Your task to perform on an android device: toggle sleep mode Image 0: 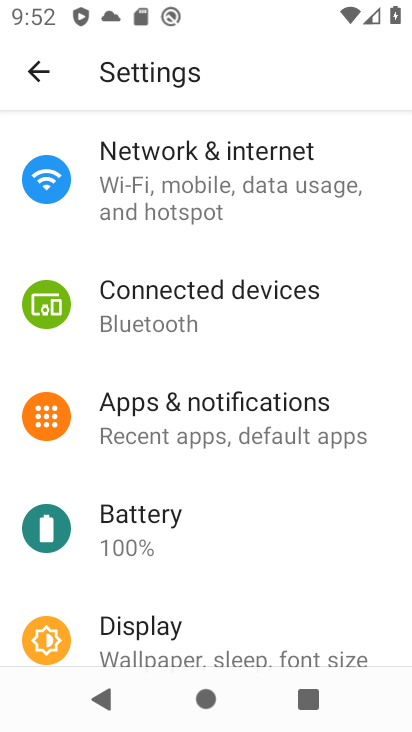
Step 0: press home button
Your task to perform on an android device: toggle sleep mode Image 1: 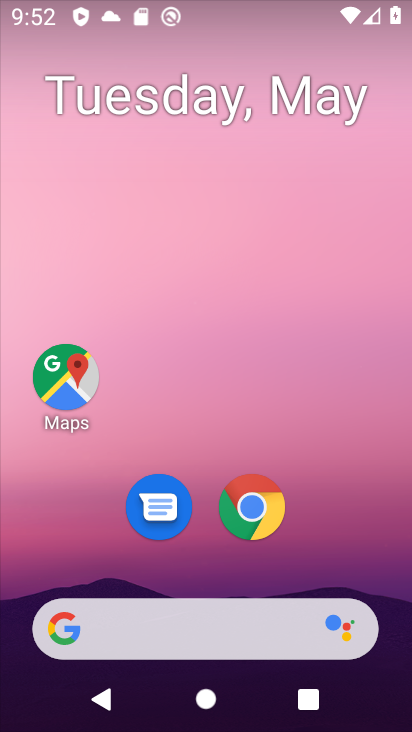
Step 1: drag from (355, 534) to (283, 194)
Your task to perform on an android device: toggle sleep mode Image 2: 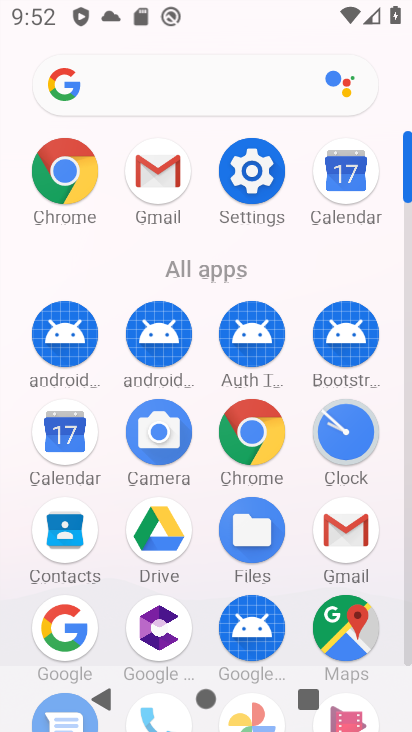
Step 2: click (408, 657)
Your task to perform on an android device: toggle sleep mode Image 3: 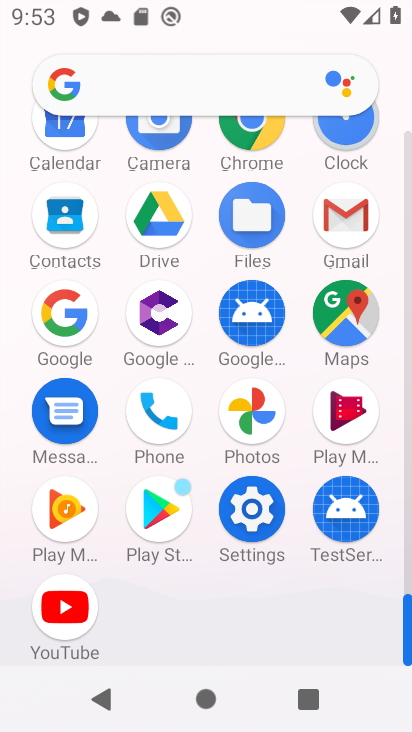
Step 3: click (272, 511)
Your task to perform on an android device: toggle sleep mode Image 4: 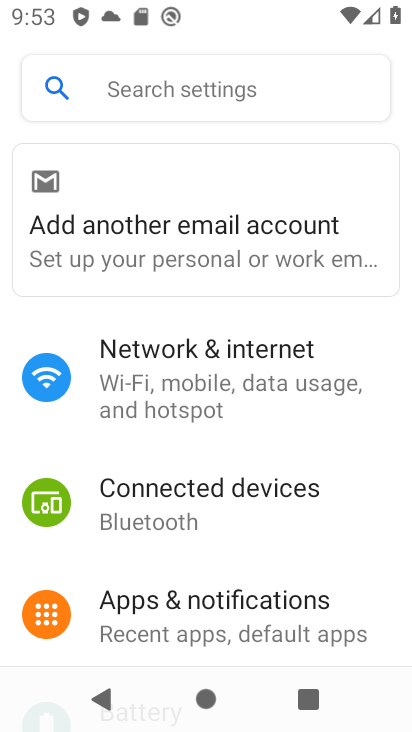
Step 4: drag from (316, 637) to (290, 86)
Your task to perform on an android device: toggle sleep mode Image 5: 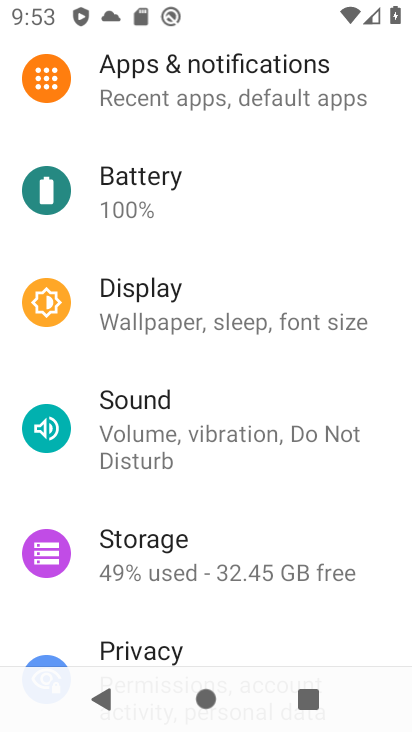
Step 5: click (313, 306)
Your task to perform on an android device: toggle sleep mode Image 6: 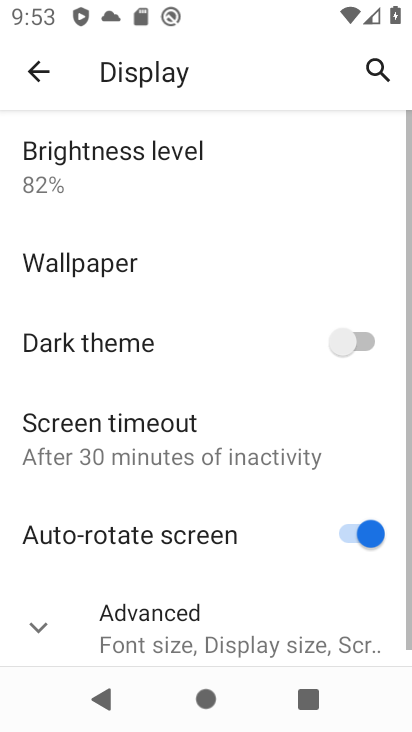
Step 6: drag from (333, 603) to (296, 117)
Your task to perform on an android device: toggle sleep mode Image 7: 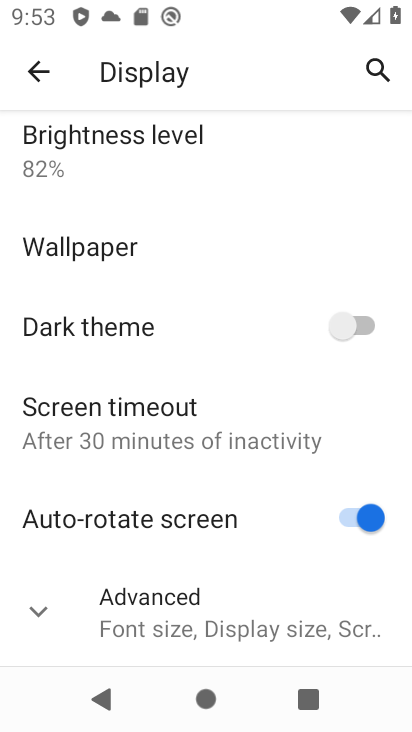
Step 7: click (300, 614)
Your task to perform on an android device: toggle sleep mode Image 8: 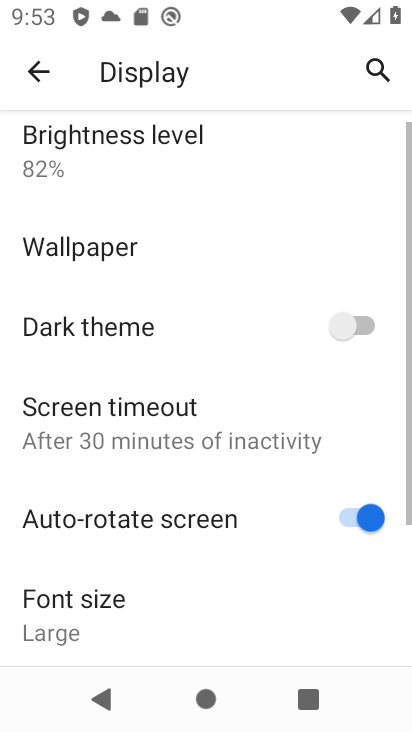
Step 8: task complete